Your task to perform on an android device: Open notification settings Image 0: 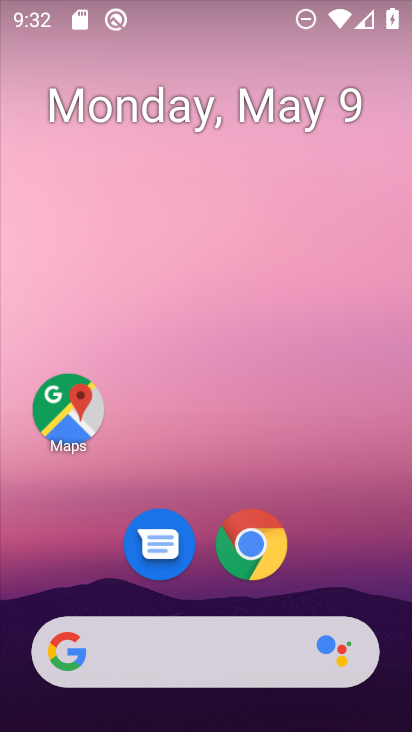
Step 0: drag from (308, 530) to (209, 128)
Your task to perform on an android device: Open notification settings Image 1: 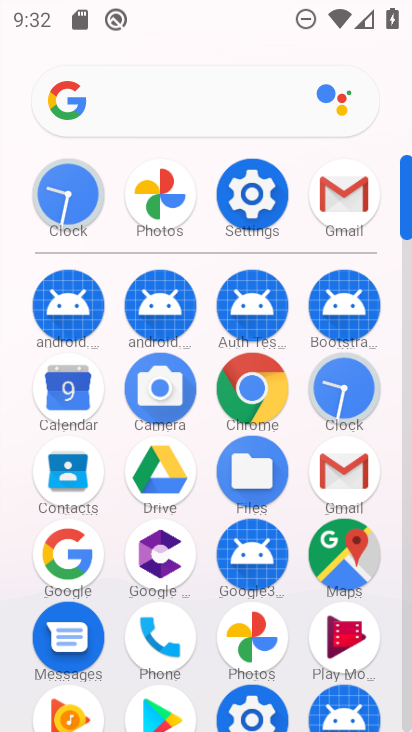
Step 1: click (247, 190)
Your task to perform on an android device: Open notification settings Image 2: 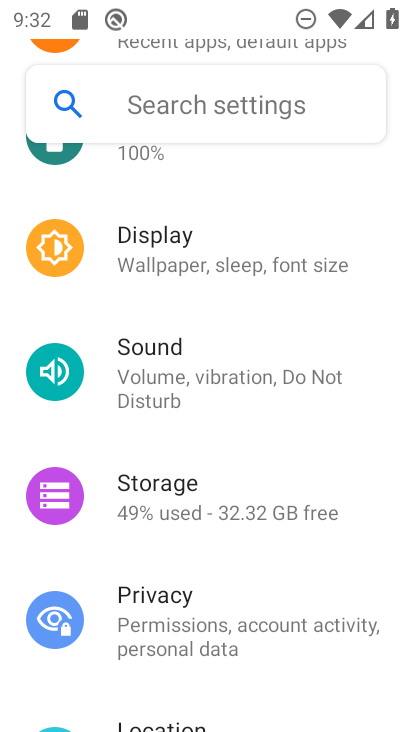
Step 2: drag from (280, 190) to (271, 407)
Your task to perform on an android device: Open notification settings Image 3: 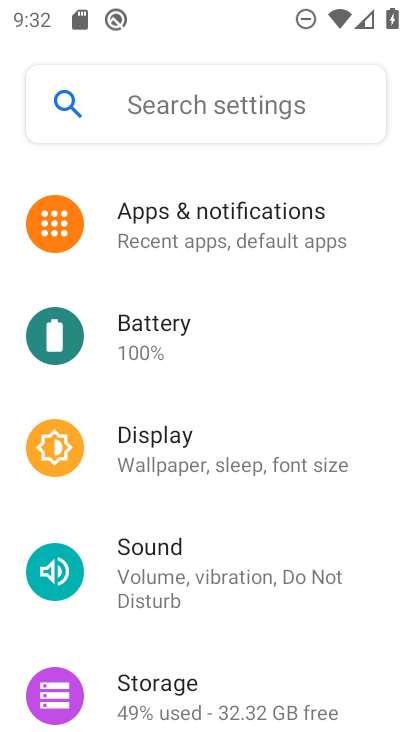
Step 3: click (195, 207)
Your task to perform on an android device: Open notification settings Image 4: 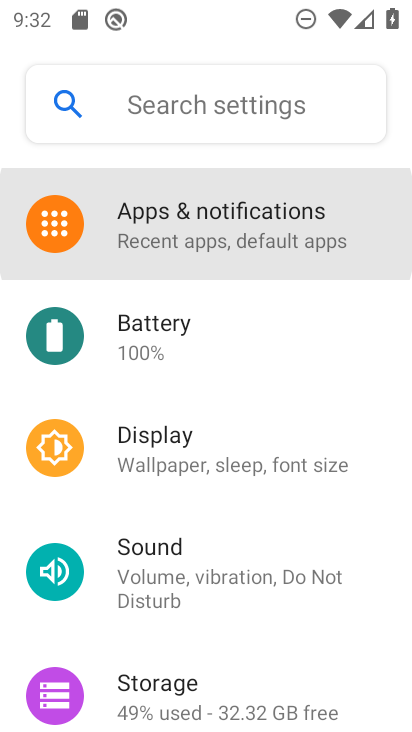
Step 4: click (195, 207)
Your task to perform on an android device: Open notification settings Image 5: 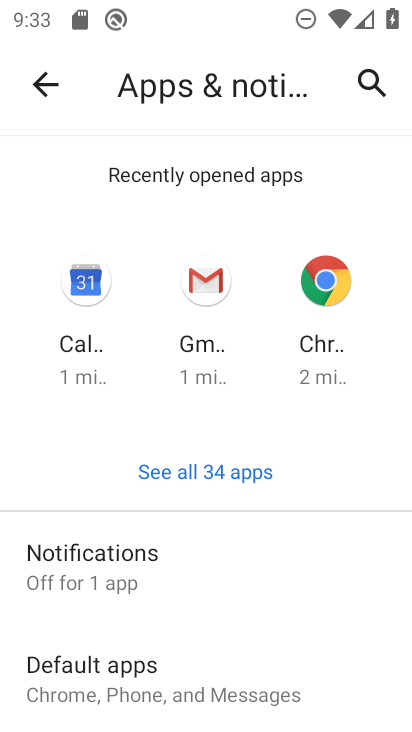
Step 5: task complete